Your task to perform on an android device: Open Maps and search for coffee Image 0: 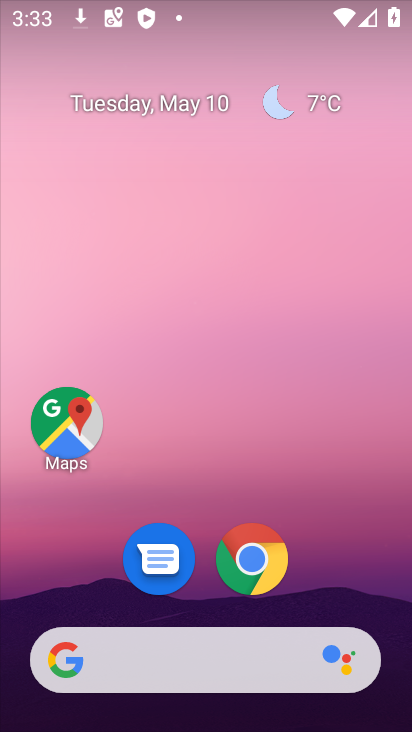
Step 0: click (257, 568)
Your task to perform on an android device: Open Maps and search for coffee Image 1: 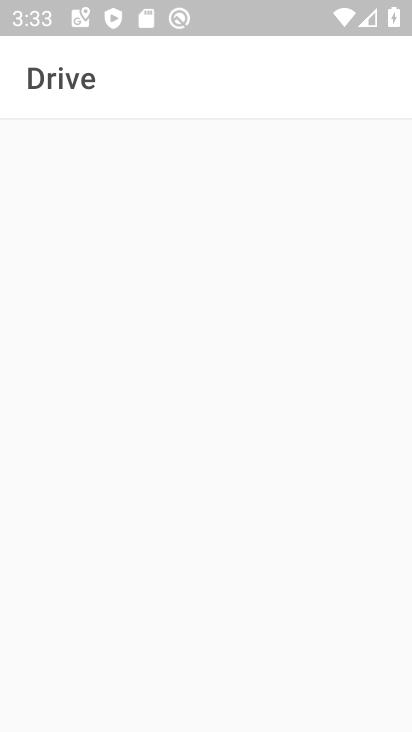
Step 1: press home button
Your task to perform on an android device: Open Maps and search for coffee Image 2: 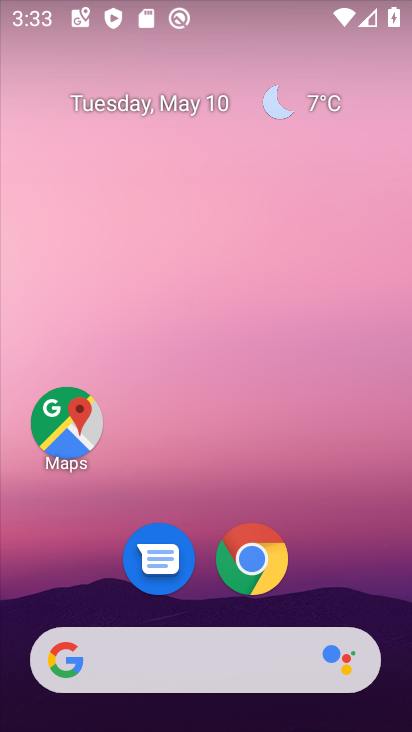
Step 2: click (77, 417)
Your task to perform on an android device: Open Maps and search for coffee Image 3: 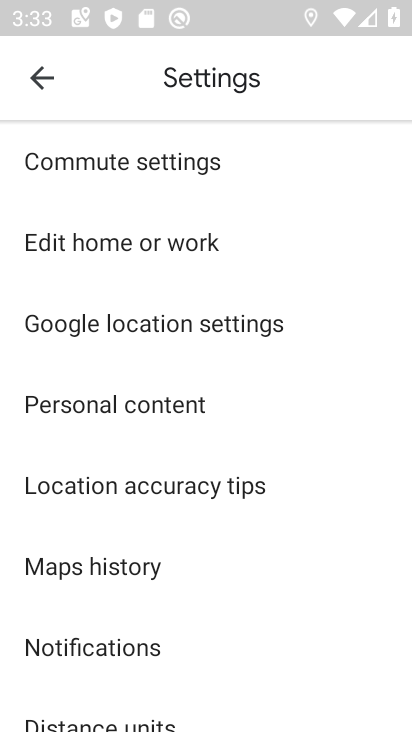
Step 3: press back button
Your task to perform on an android device: Open Maps and search for coffee Image 4: 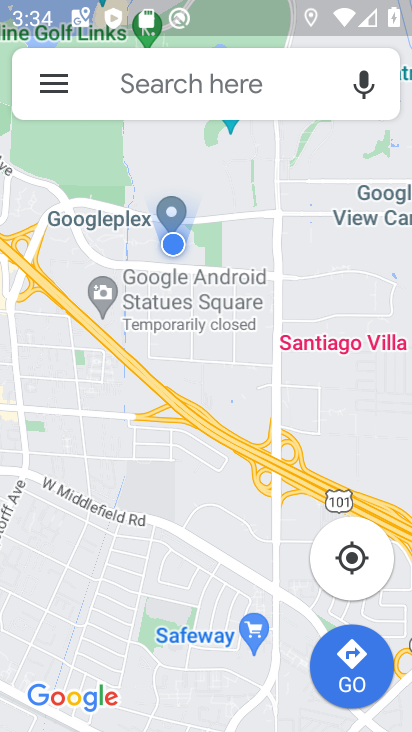
Step 4: click (133, 90)
Your task to perform on an android device: Open Maps and search for coffee Image 5: 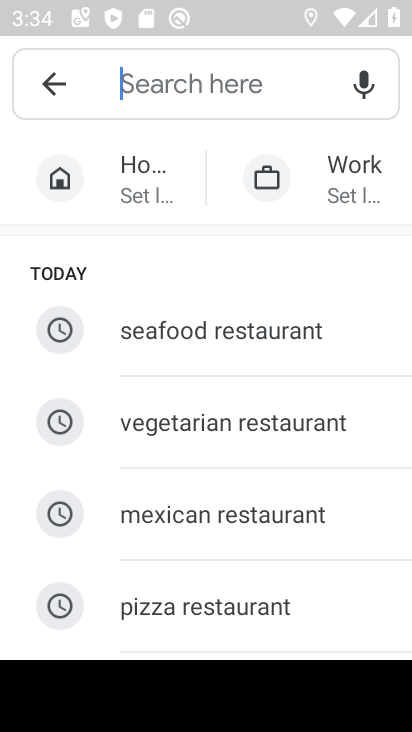
Step 5: type "coffee"
Your task to perform on an android device: Open Maps and search for coffee Image 6: 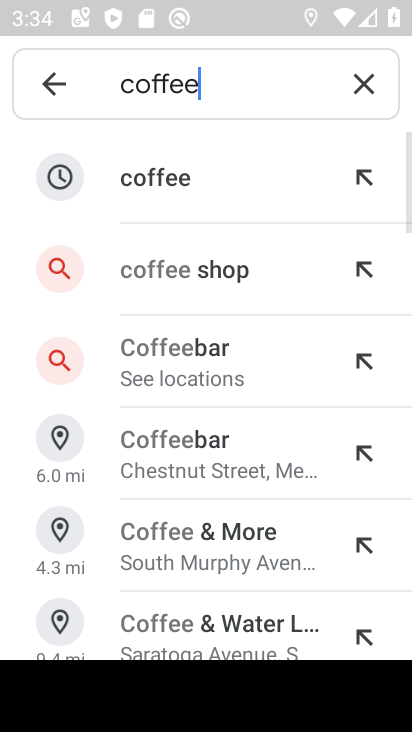
Step 6: click (177, 189)
Your task to perform on an android device: Open Maps and search for coffee Image 7: 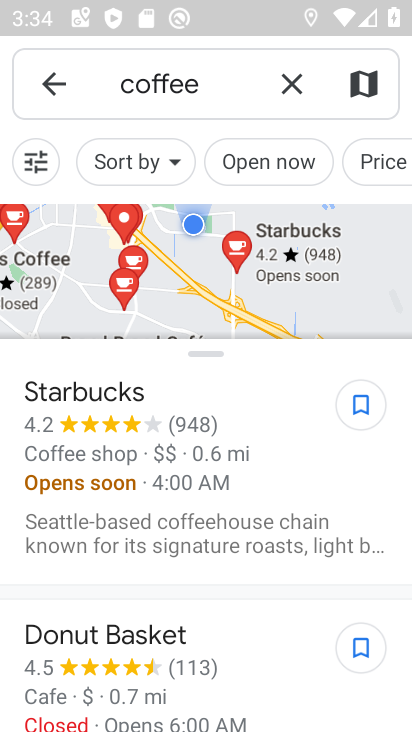
Step 7: task complete